Your task to perform on an android device: add a contact Image 0: 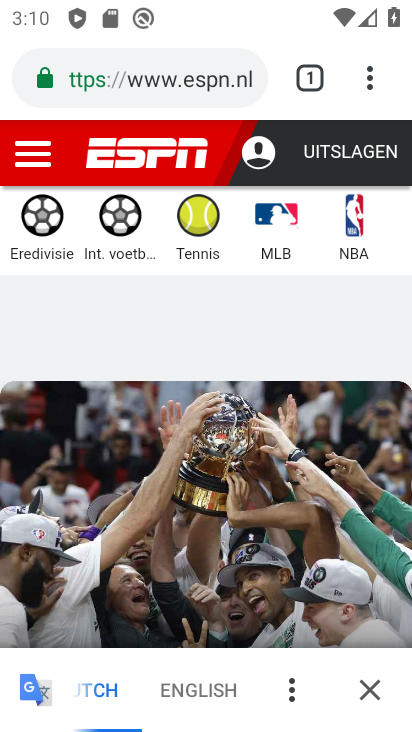
Step 0: press home button
Your task to perform on an android device: add a contact Image 1: 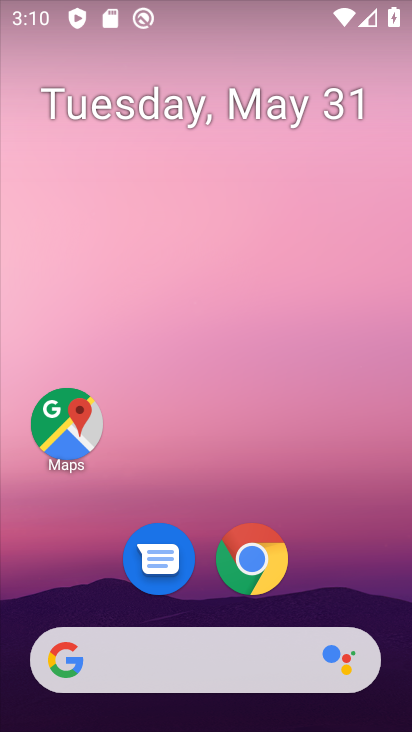
Step 1: drag from (198, 724) to (197, 524)
Your task to perform on an android device: add a contact Image 2: 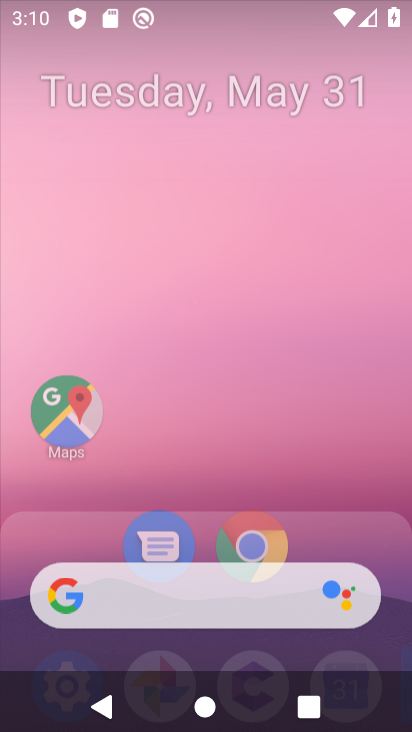
Step 2: click (197, 264)
Your task to perform on an android device: add a contact Image 3: 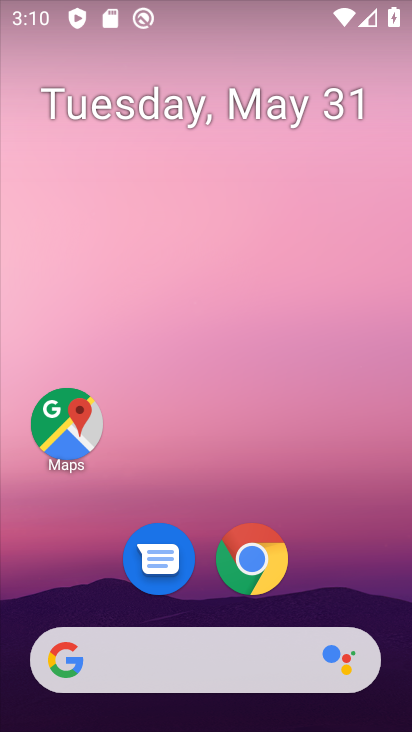
Step 3: drag from (206, 710) to (206, 128)
Your task to perform on an android device: add a contact Image 4: 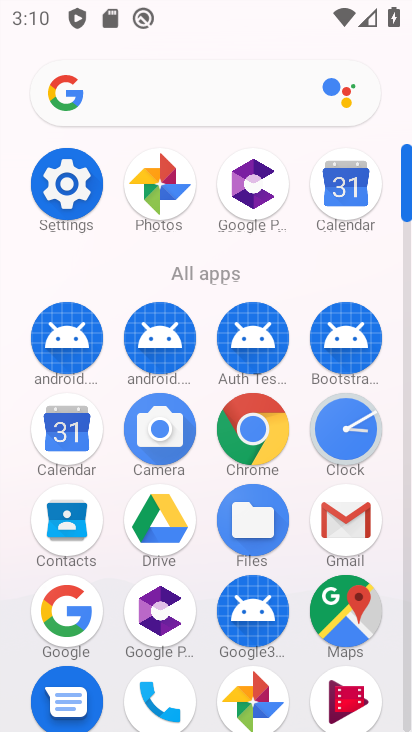
Step 4: click (67, 533)
Your task to perform on an android device: add a contact Image 5: 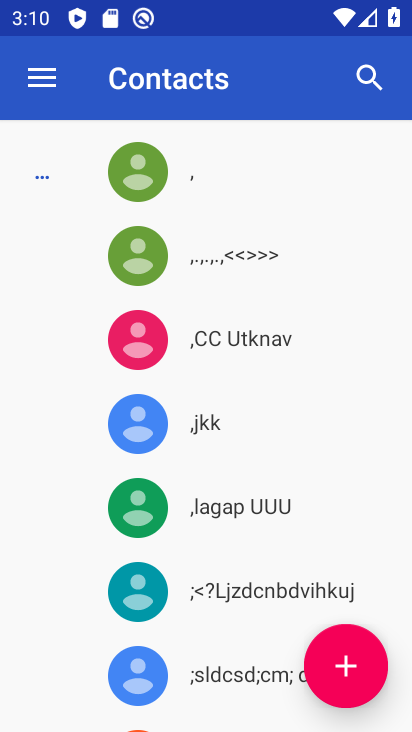
Step 5: click (353, 668)
Your task to perform on an android device: add a contact Image 6: 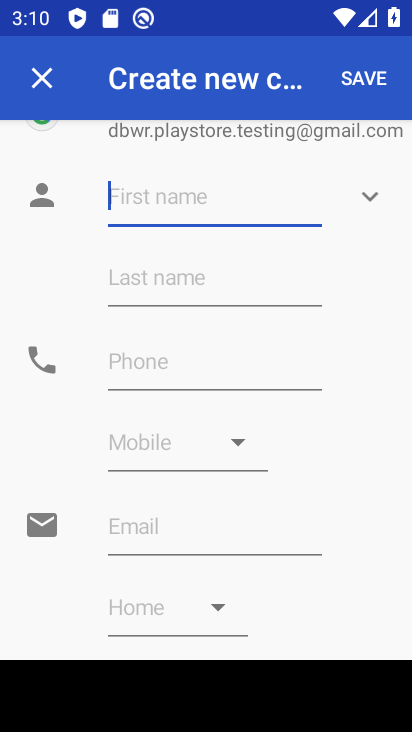
Step 6: type "hasth"
Your task to perform on an android device: add a contact Image 7: 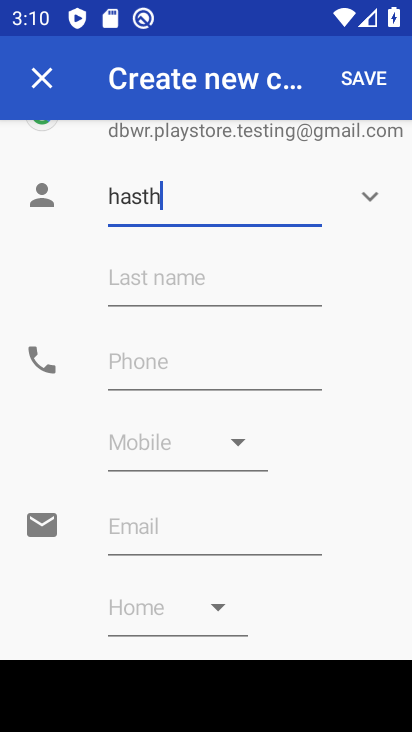
Step 7: click (188, 361)
Your task to perform on an android device: add a contact Image 8: 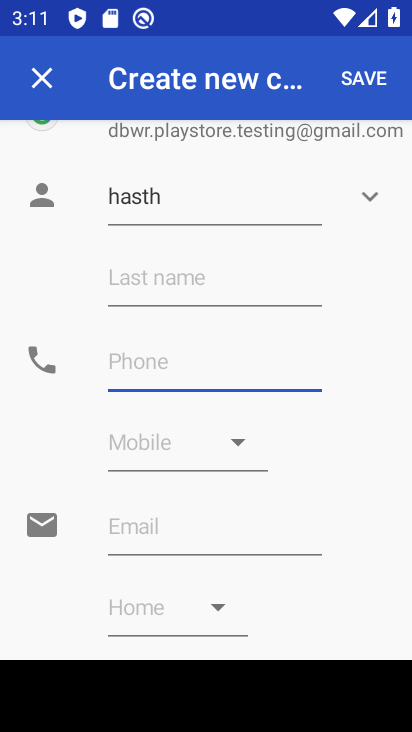
Step 8: type "8888"
Your task to perform on an android device: add a contact Image 9: 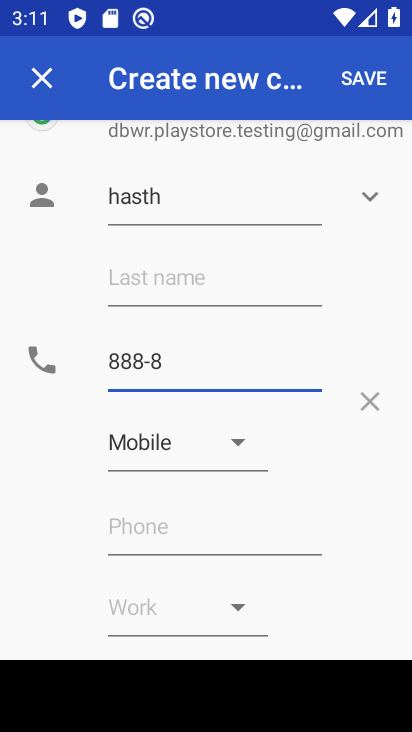
Step 9: click (365, 82)
Your task to perform on an android device: add a contact Image 10: 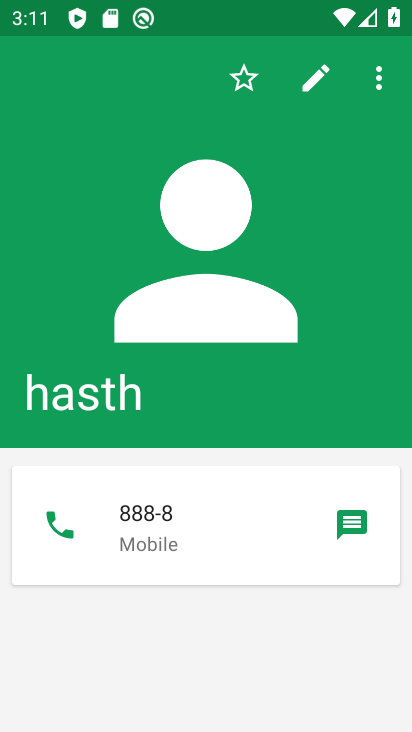
Step 10: task complete